Your task to perform on an android device: toggle translation in the chrome app Image 0: 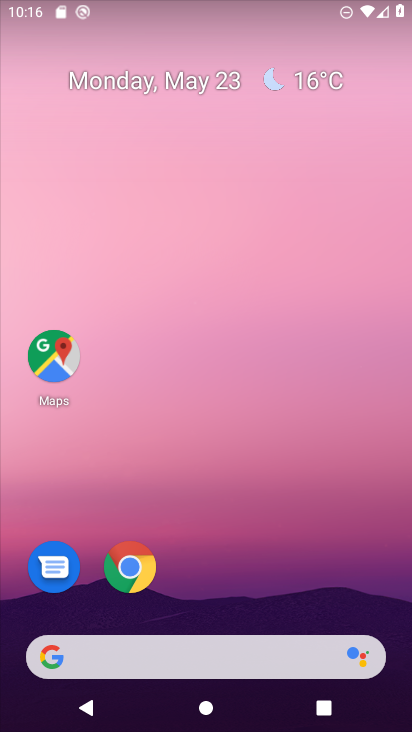
Step 0: drag from (202, 574) to (281, 132)
Your task to perform on an android device: toggle translation in the chrome app Image 1: 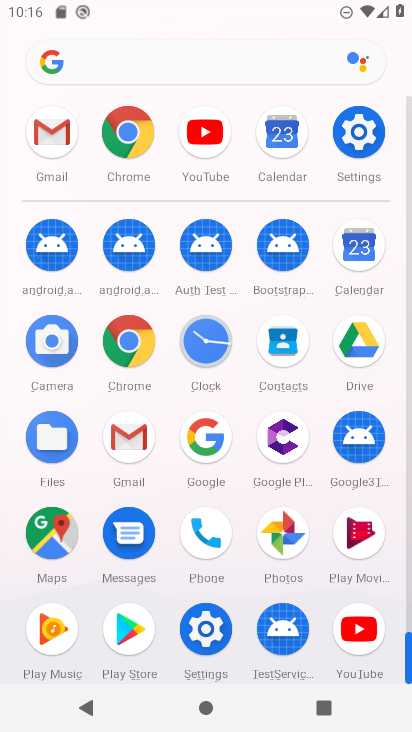
Step 1: click (130, 333)
Your task to perform on an android device: toggle translation in the chrome app Image 2: 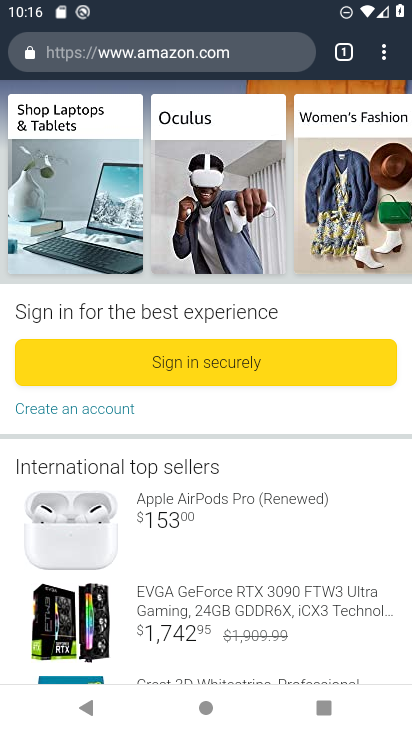
Step 2: drag from (243, 617) to (282, 286)
Your task to perform on an android device: toggle translation in the chrome app Image 3: 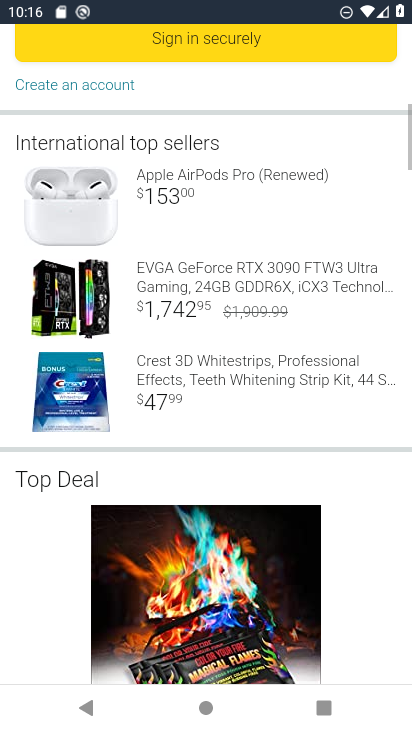
Step 3: drag from (279, 247) to (256, 723)
Your task to perform on an android device: toggle translation in the chrome app Image 4: 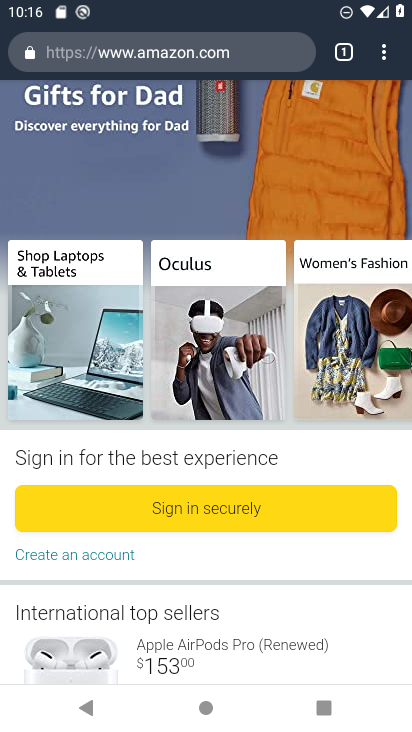
Step 4: click (387, 61)
Your task to perform on an android device: toggle translation in the chrome app Image 5: 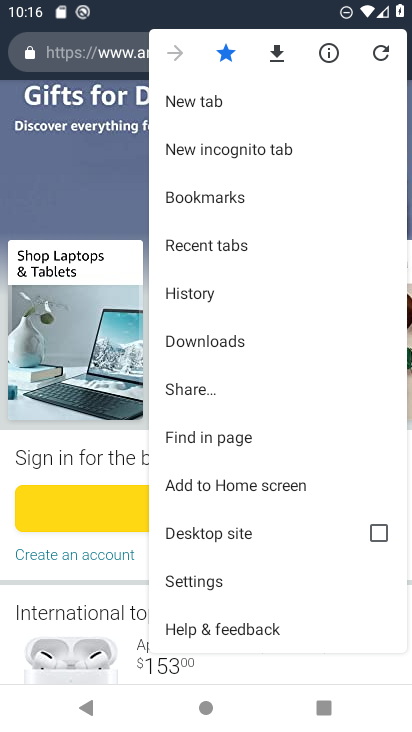
Step 5: drag from (229, 611) to (346, 149)
Your task to perform on an android device: toggle translation in the chrome app Image 6: 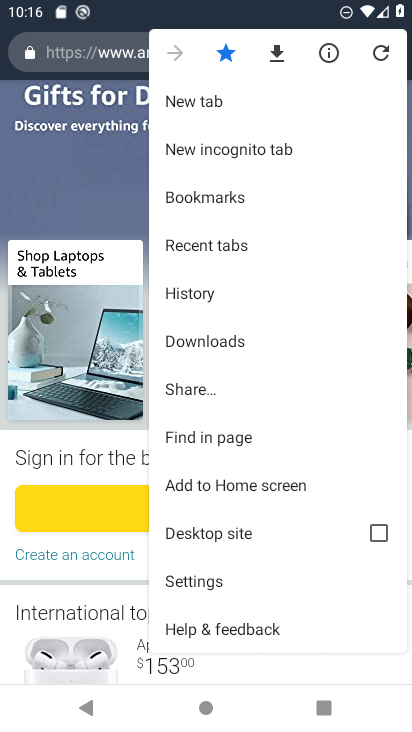
Step 6: click (215, 578)
Your task to perform on an android device: toggle translation in the chrome app Image 7: 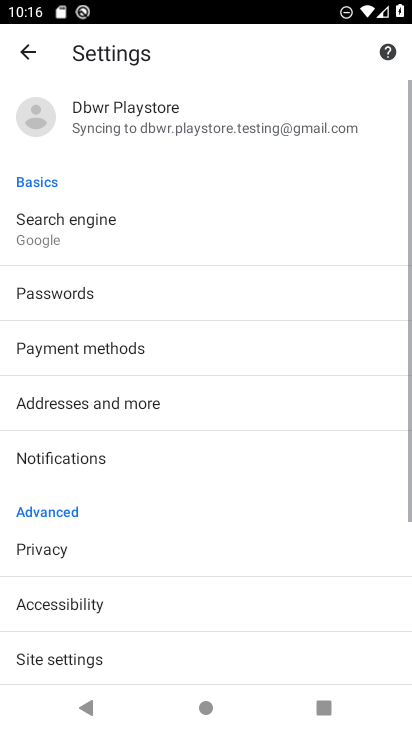
Step 7: drag from (257, 626) to (283, 244)
Your task to perform on an android device: toggle translation in the chrome app Image 8: 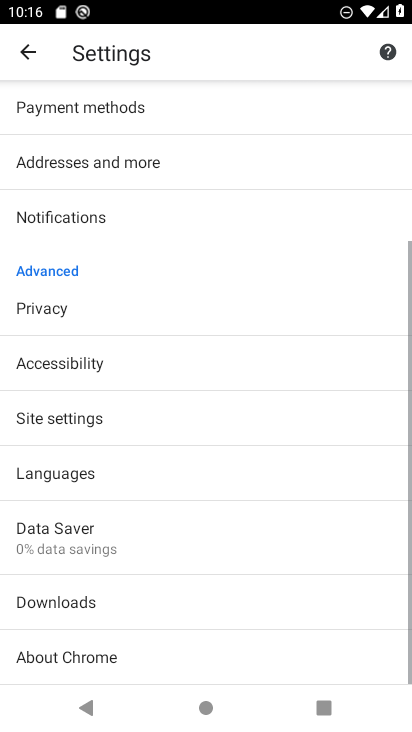
Step 8: drag from (252, 219) to (185, 671)
Your task to perform on an android device: toggle translation in the chrome app Image 9: 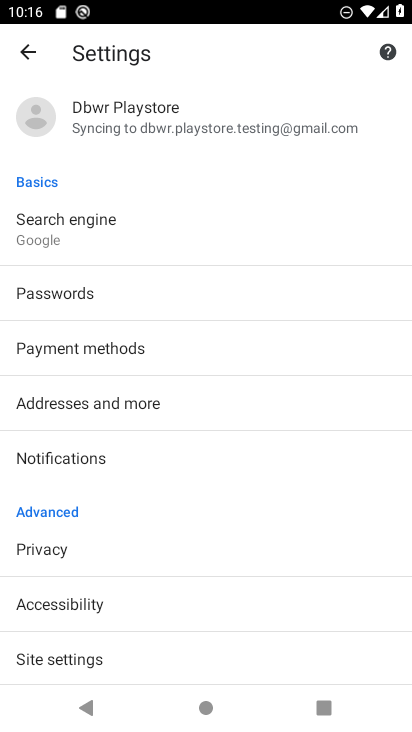
Step 9: drag from (161, 599) to (280, 230)
Your task to perform on an android device: toggle translation in the chrome app Image 10: 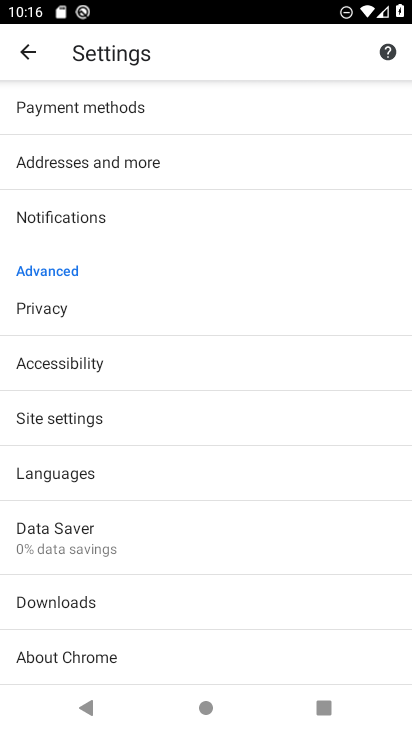
Step 10: drag from (164, 199) to (251, 728)
Your task to perform on an android device: toggle translation in the chrome app Image 11: 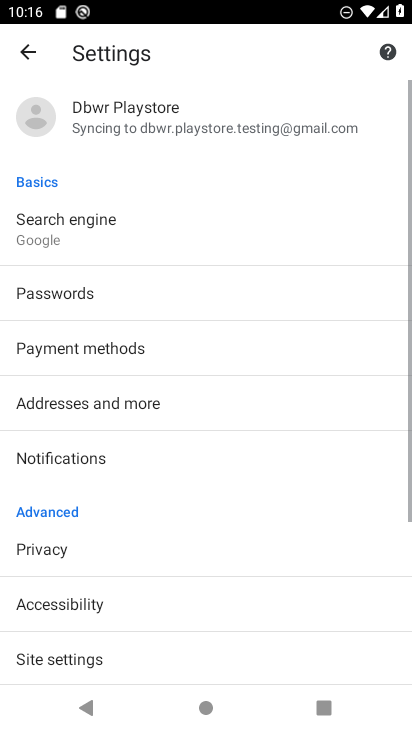
Step 11: drag from (183, 629) to (210, 298)
Your task to perform on an android device: toggle translation in the chrome app Image 12: 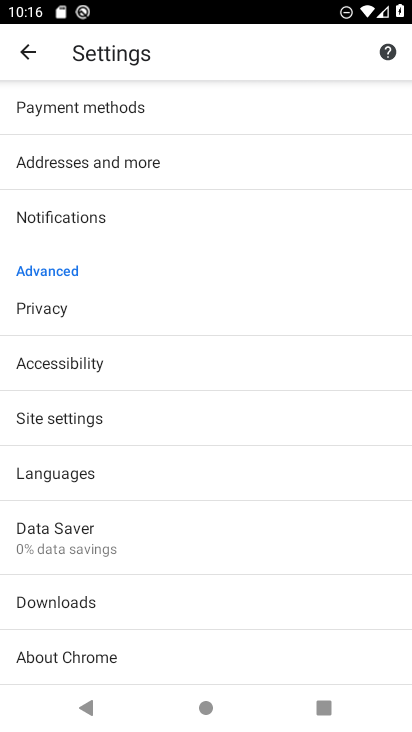
Step 12: click (85, 468)
Your task to perform on an android device: toggle translation in the chrome app Image 13: 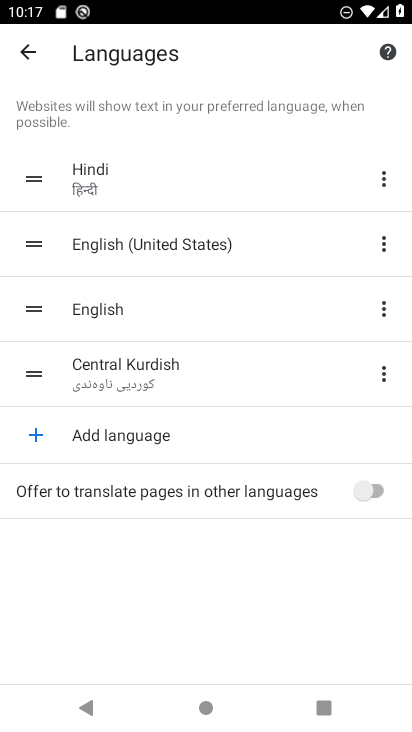
Step 13: drag from (245, 645) to (286, 123)
Your task to perform on an android device: toggle translation in the chrome app Image 14: 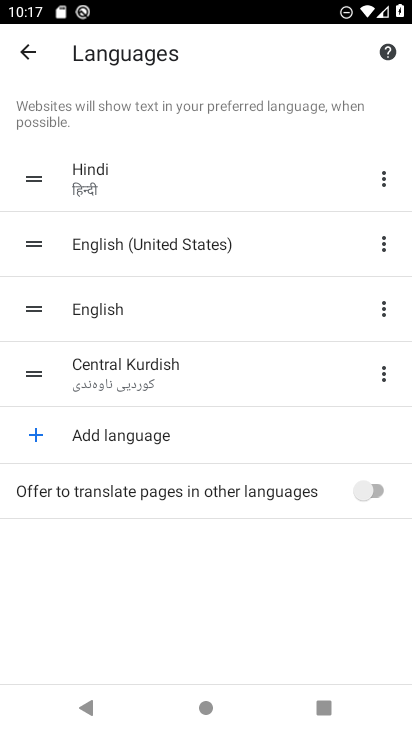
Step 14: click (163, 498)
Your task to perform on an android device: toggle translation in the chrome app Image 15: 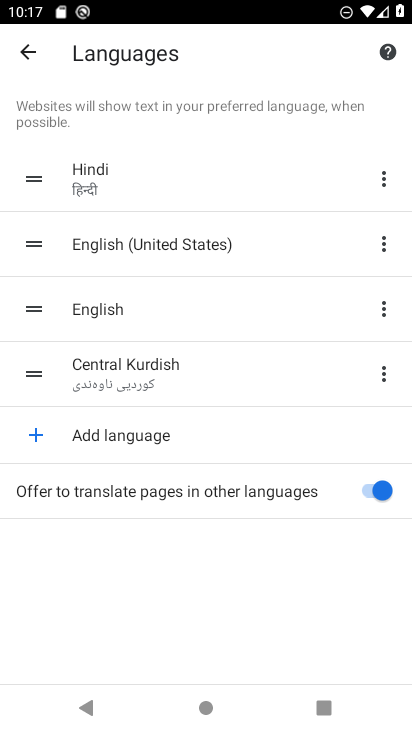
Step 15: task complete